Your task to perform on an android device: set default search engine in the chrome app Image 0: 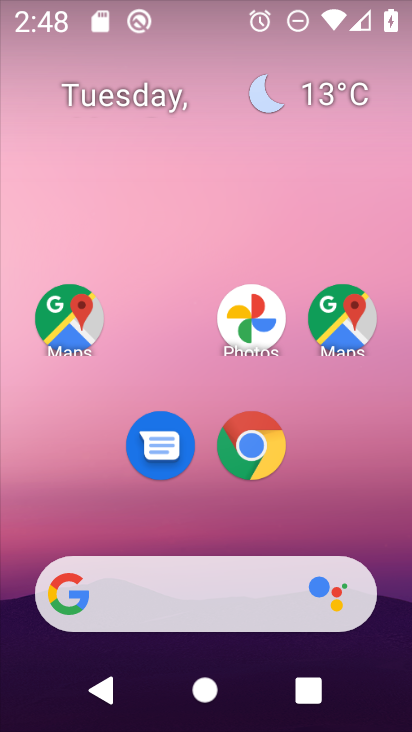
Step 0: drag from (376, 535) to (376, 130)
Your task to perform on an android device: set default search engine in the chrome app Image 1: 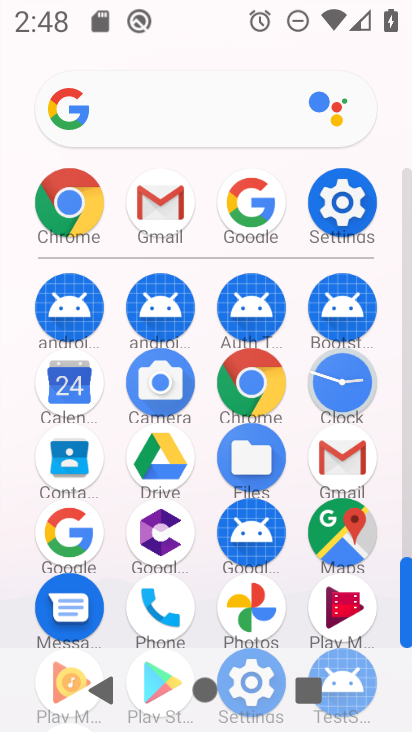
Step 1: drag from (380, 521) to (377, 384)
Your task to perform on an android device: set default search engine in the chrome app Image 2: 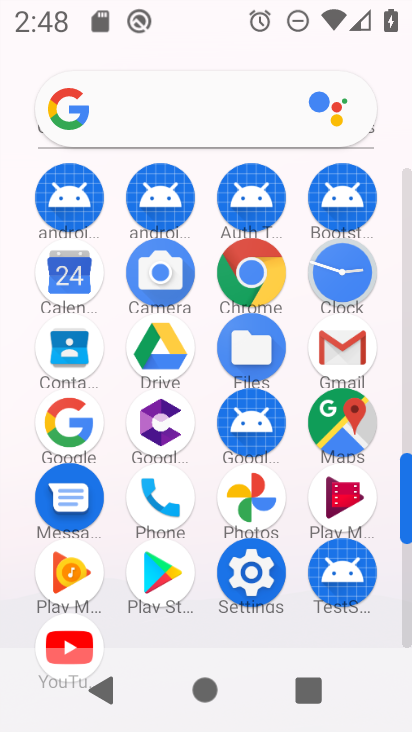
Step 2: drag from (385, 590) to (367, 442)
Your task to perform on an android device: set default search engine in the chrome app Image 3: 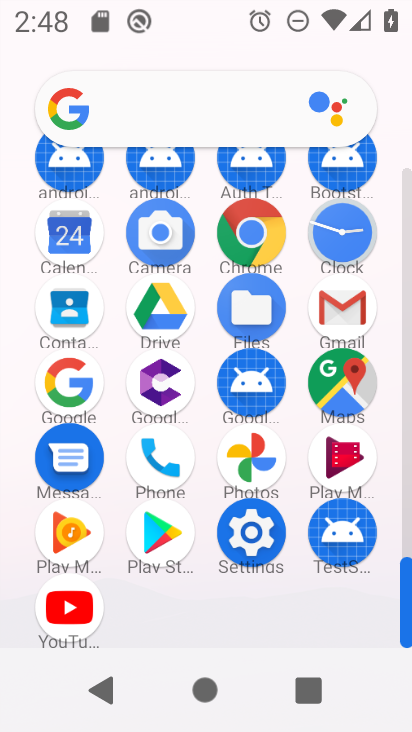
Step 3: click (239, 216)
Your task to perform on an android device: set default search engine in the chrome app Image 4: 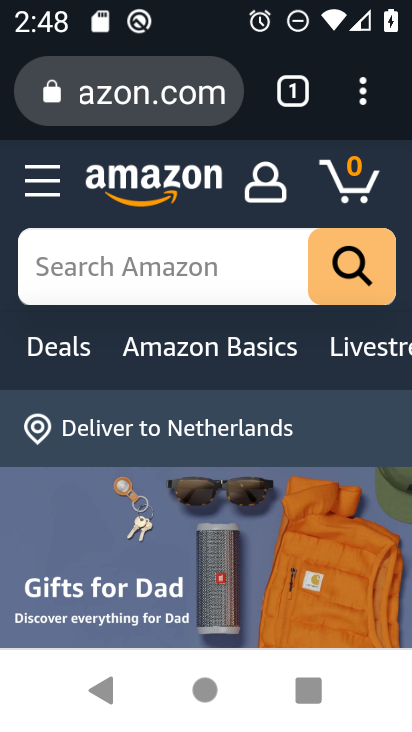
Step 4: click (364, 109)
Your task to perform on an android device: set default search engine in the chrome app Image 5: 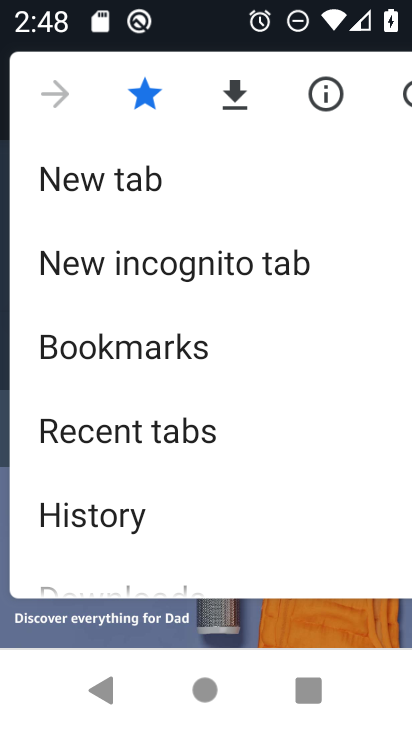
Step 5: drag from (321, 505) to (323, 361)
Your task to perform on an android device: set default search engine in the chrome app Image 6: 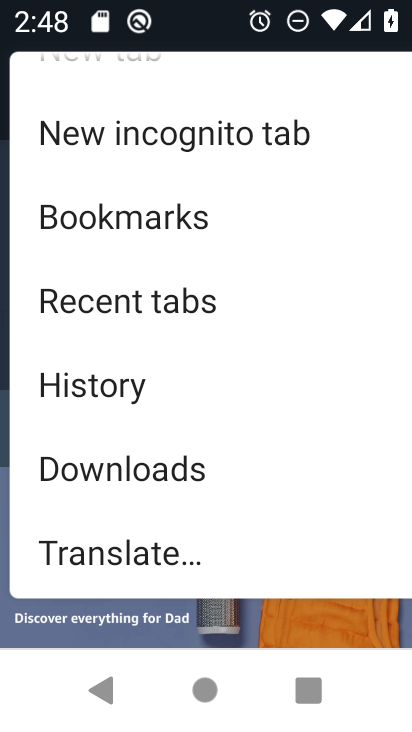
Step 6: drag from (308, 511) to (316, 390)
Your task to perform on an android device: set default search engine in the chrome app Image 7: 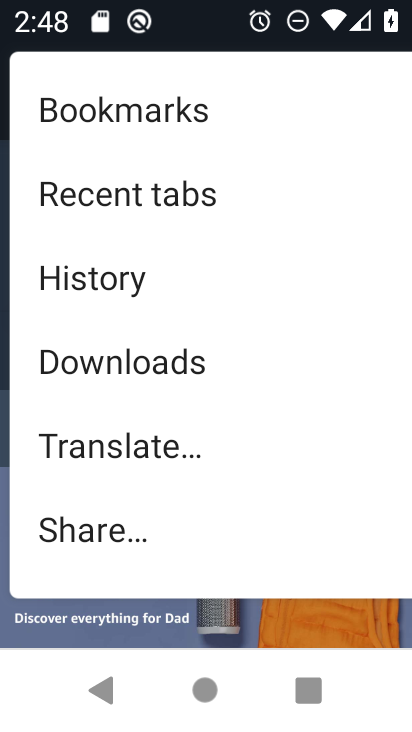
Step 7: drag from (276, 530) to (276, 441)
Your task to perform on an android device: set default search engine in the chrome app Image 8: 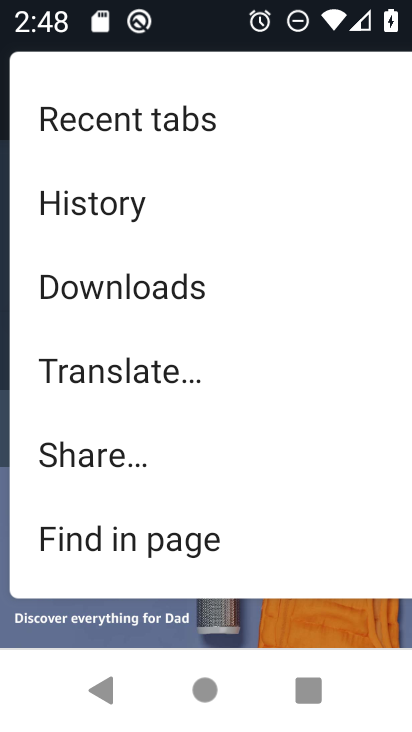
Step 8: drag from (299, 522) to (299, 449)
Your task to perform on an android device: set default search engine in the chrome app Image 9: 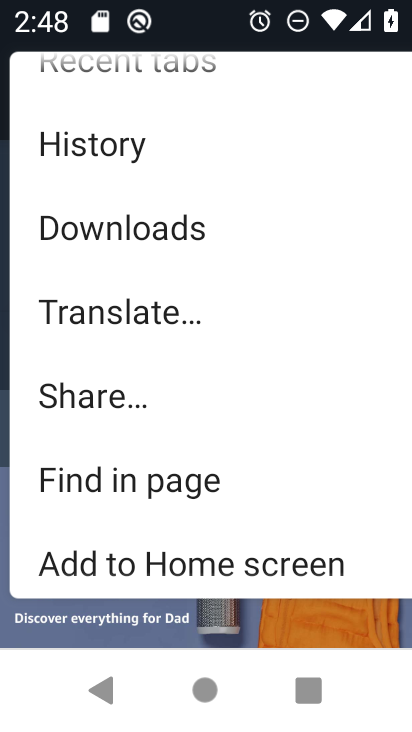
Step 9: drag from (304, 519) to (304, 459)
Your task to perform on an android device: set default search engine in the chrome app Image 10: 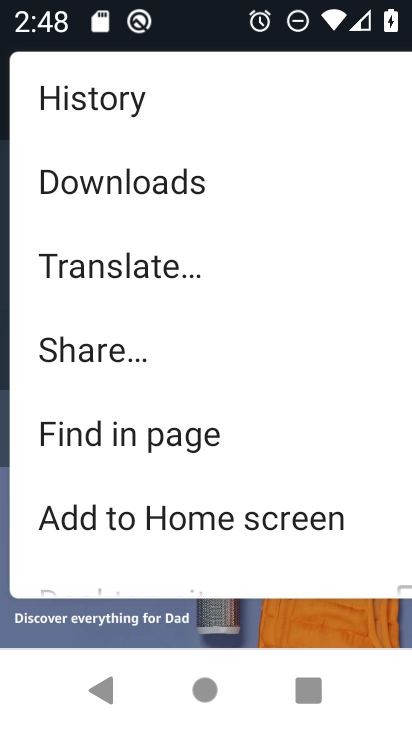
Step 10: drag from (315, 550) to (314, 465)
Your task to perform on an android device: set default search engine in the chrome app Image 11: 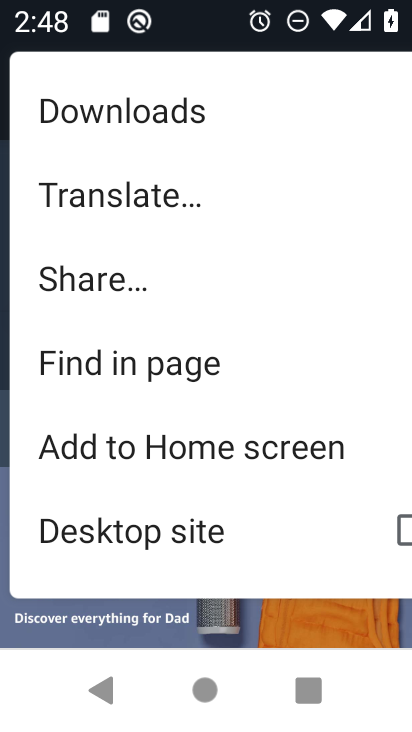
Step 11: drag from (313, 543) to (311, 459)
Your task to perform on an android device: set default search engine in the chrome app Image 12: 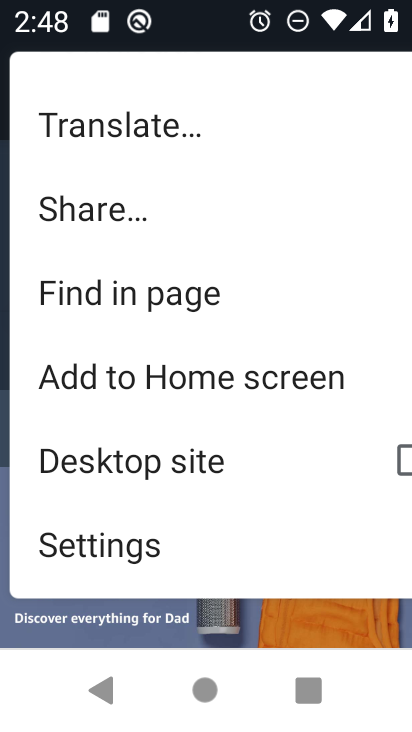
Step 12: drag from (292, 514) to (295, 405)
Your task to perform on an android device: set default search engine in the chrome app Image 13: 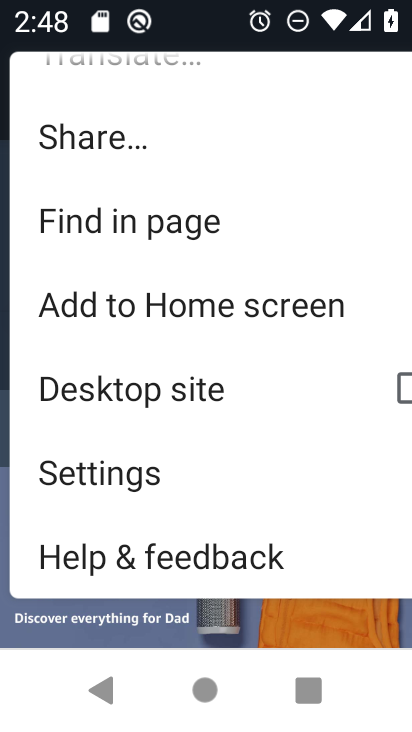
Step 13: click (144, 487)
Your task to perform on an android device: set default search engine in the chrome app Image 14: 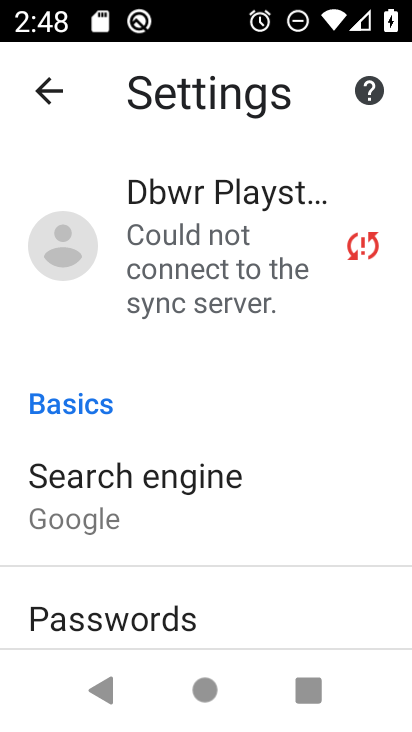
Step 14: drag from (311, 541) to (315, 435)
Your task to perform on an android device: set default search engine in the chrome app Image 15: 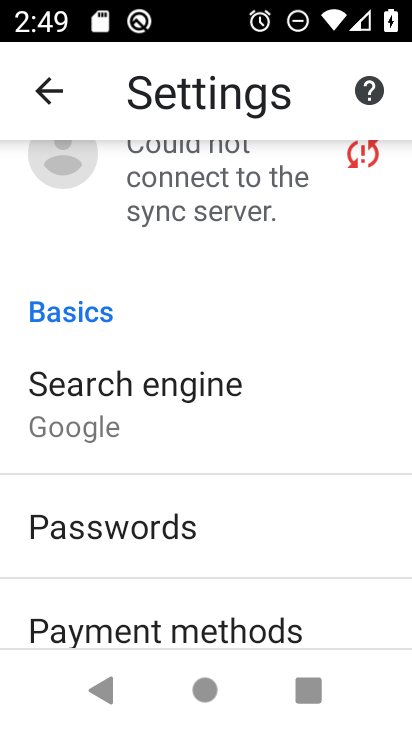
Step 15: drag from (348, 521) to (346, 381)
Your task to perform on an android device: set default search engine in the chrome app Image 16: 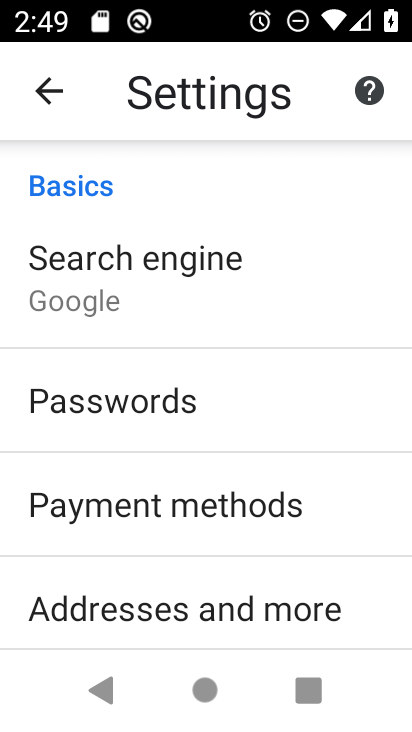
Step 16: drag from (369, 598) to (361, 492)
Your task to perform on an android device: set default search engine in the chrome app Image 17: 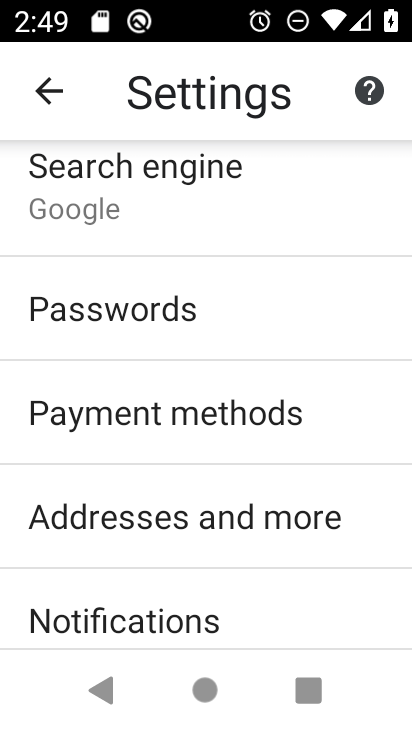
Step 17: drag from (360, 570) to (385, 412)
Your task to perform on an android device: set default search engine in the chrome app Image 18: 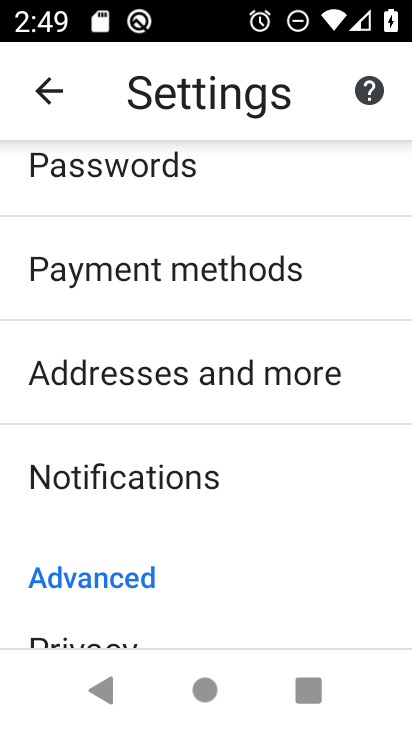
Step 18: drag from (356, 572) to (356, 407)
Your task to perform on an android device: set default search engine in the chrome app Image 19: 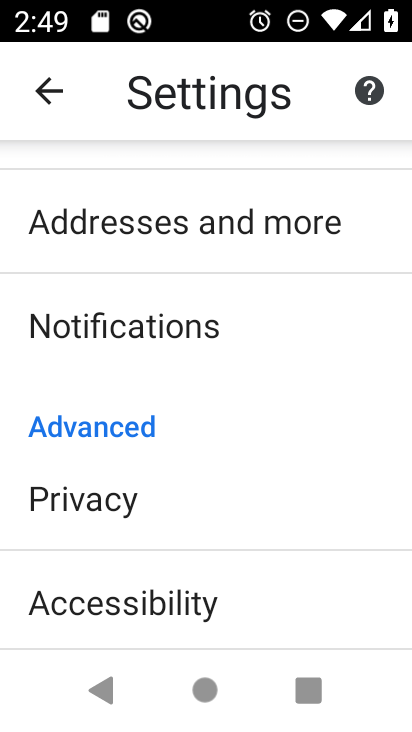
Step 19: drag from (353, 603) to (351, 492)
Your task to perform on an android device: set default search engine in the chrome app Image 20: 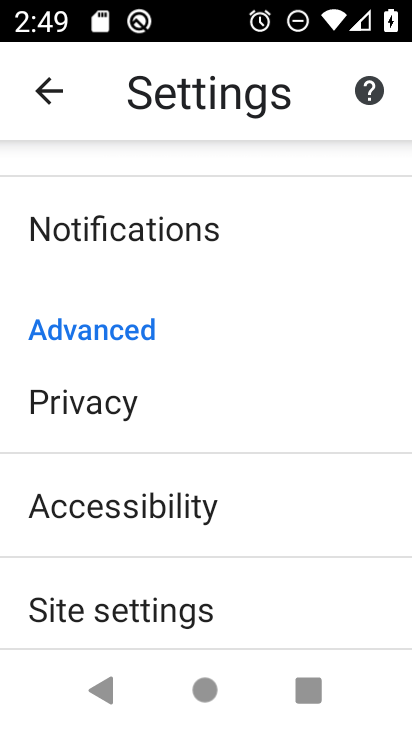
Step 20: drag from (369, 586) to (363, 396)
Your task to perform on an android device: set default search engine in the chrome app Image 21: 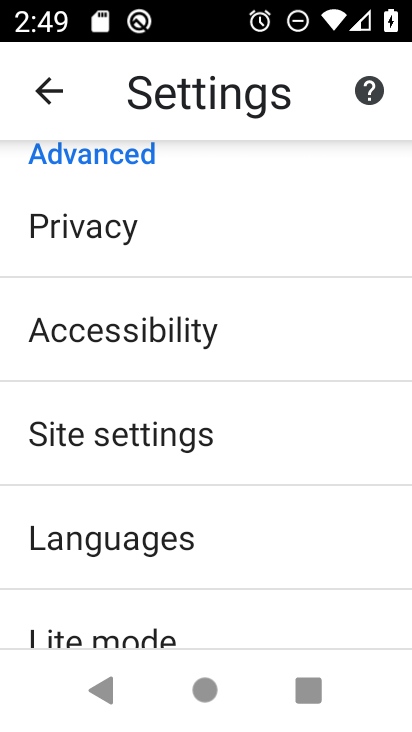
Step 21: drag from (366, 581) to (358, 291)
Your task to perform on an android device: set default search engine in the chrome app Image 22: 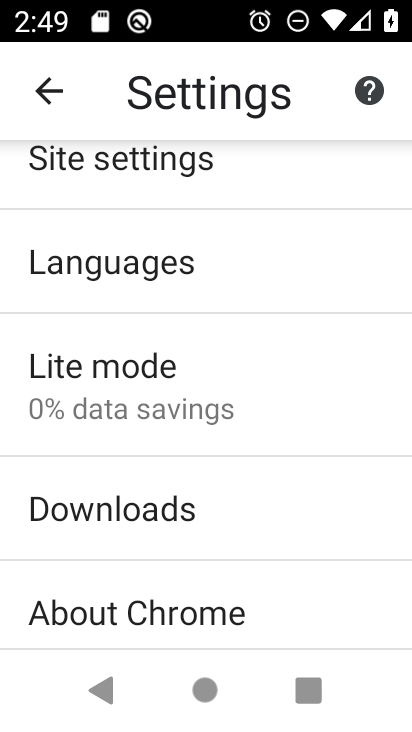
Step 22: drag from (343, 259) to (350, 383)
Your task to perform on an android device: set default search engine in the chrome app Image 23: 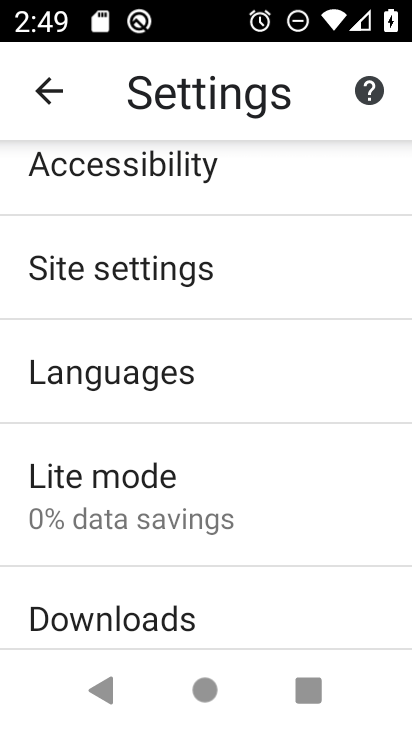
Step 23: drag from (346, 266) to (339, 369)
Your task to perform on an android device: set default search engine in the chrome app Image 24: 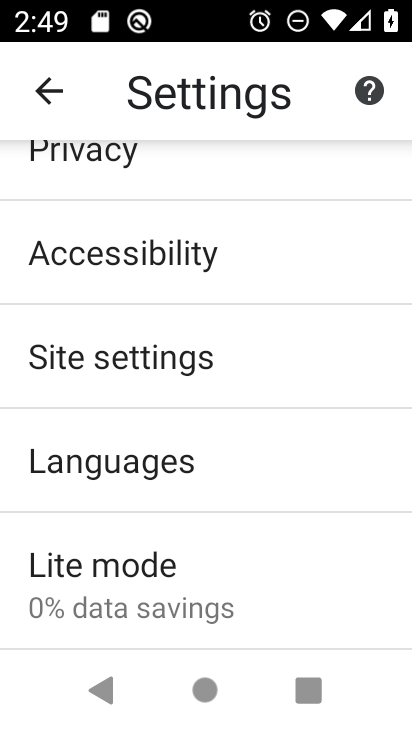
Step 24: drag from (354, 266) to (340, 377)
Your task to perform on an android device: set default search engine in the chrome app Image 25: 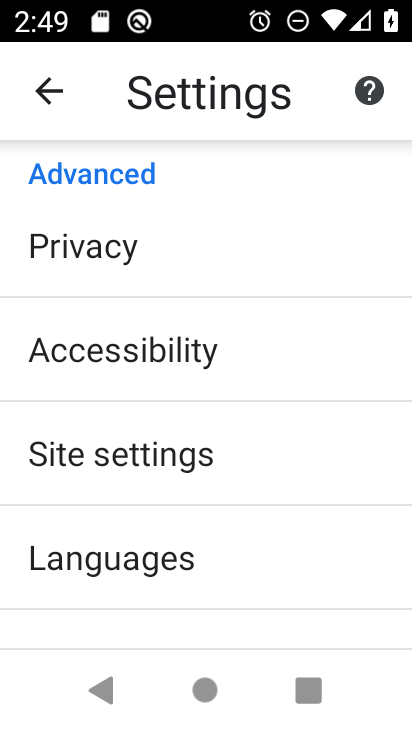
Step 25: drag from (343, 242) to (336, 380)
Your task to perform on an android device: set default search engine in the chrome app Image 26: 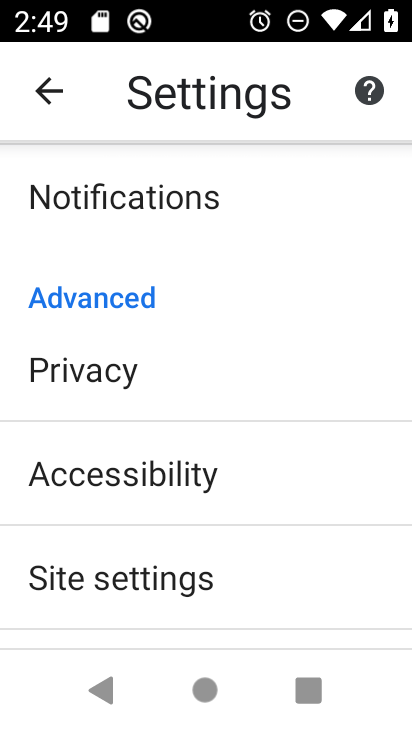
Step 26: drag from (323, 214) to (314, 432)
Your task to perform on an android device: set default search engine in the chrome app Image 27: 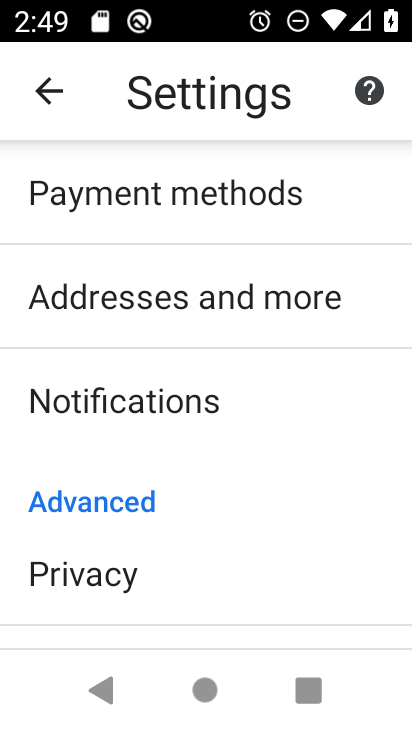
Step 27: drag from (366, 271) to (368, 424)
Your task to perform on an android device: set default search engine in the chrome app Image 28: 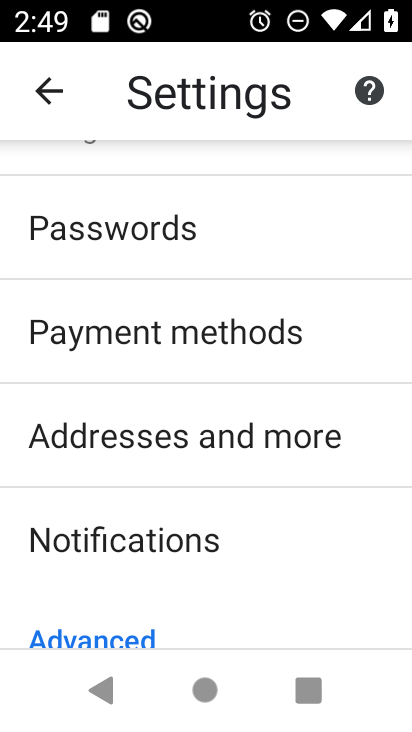
Step 28: drag from (352, 230) to (350, 383)
Your task to perform on an android device: set default search engine in the chrome app Image 29: 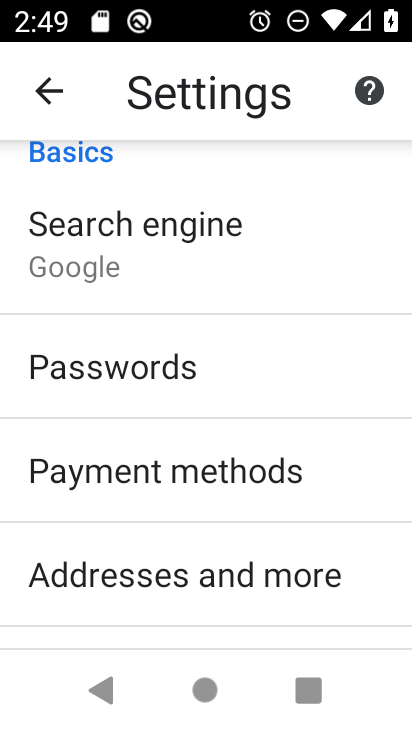
Step 29: click (136, 282)
Your task to perform on an android device: set default search engine in the chrome app Image 30: 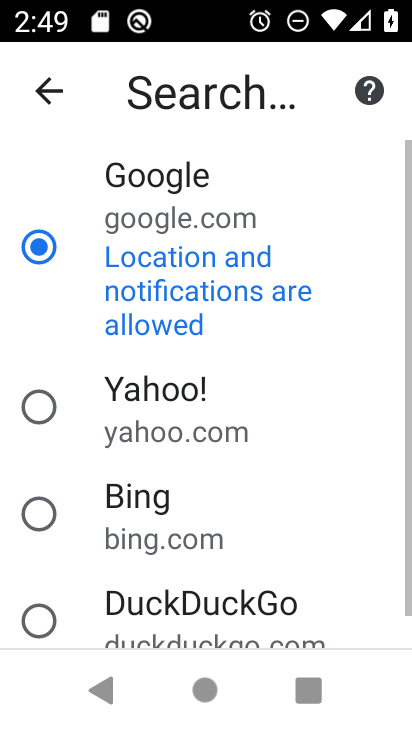
Step 30: click (104, 495)
Your task to perform on an android device: set default search engine in the chrome app Image 31: 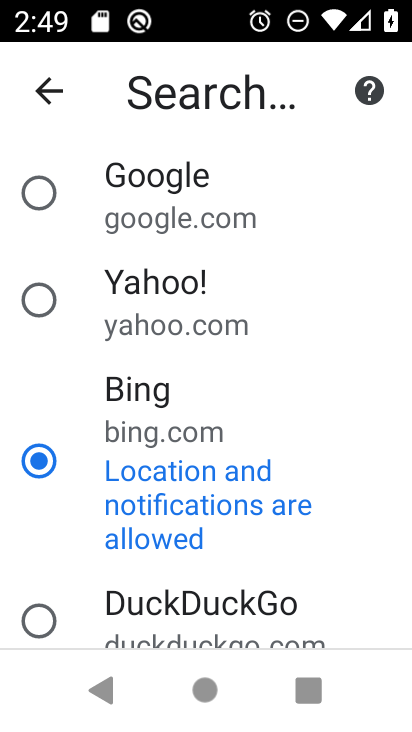
Step 31: task complete